Your task to perform on an android device: make emails show in primary in the gmail app Image 0: 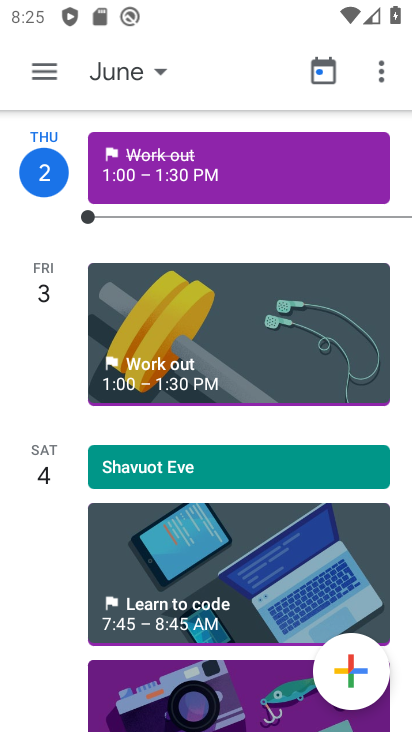
Step 0: press home button
Your task to perform on an android device: make emails show in primary in the gmail app Image 1: 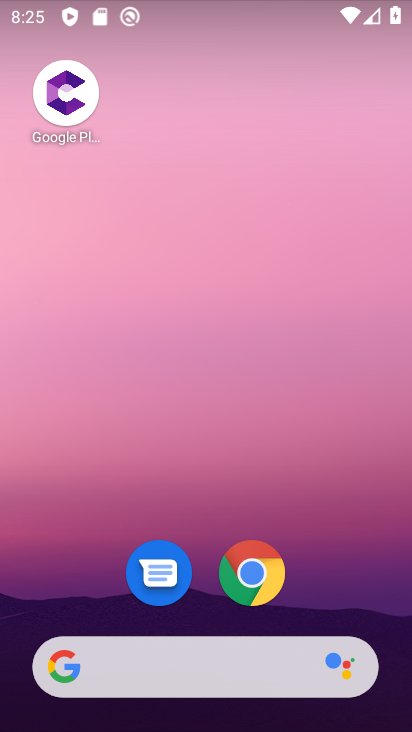
Step 1: drag from (339, 594) to (379, 44)
Your task to perform on an android device: make emails show in primary in the gmail app Image 2: 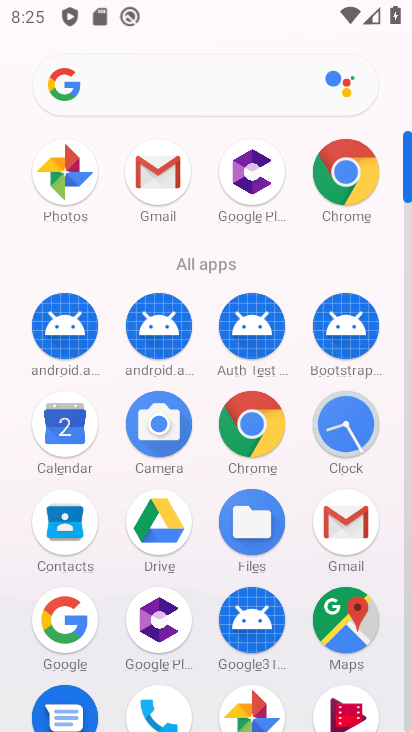
Step 2: click (167, 179)
Your task to perform on an android device: make emails show in primary in the gmail app Image 3: 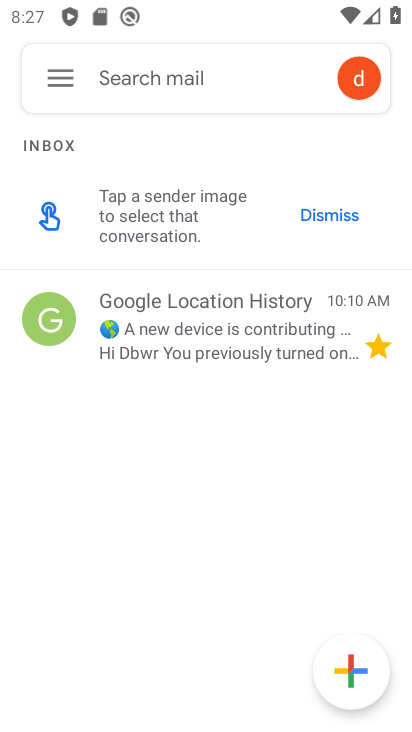
Step 3: press home button
Your task to perform on an android device: make emails show in primary in the gmail app Image 4: 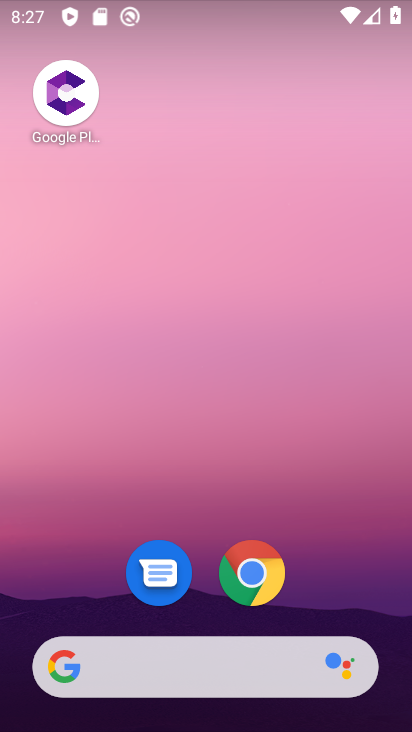
Step 4: drag from (325, 600) to (369, 27)
Your task to perform on an android device: make emails show in primary in the gmail app Image 5: 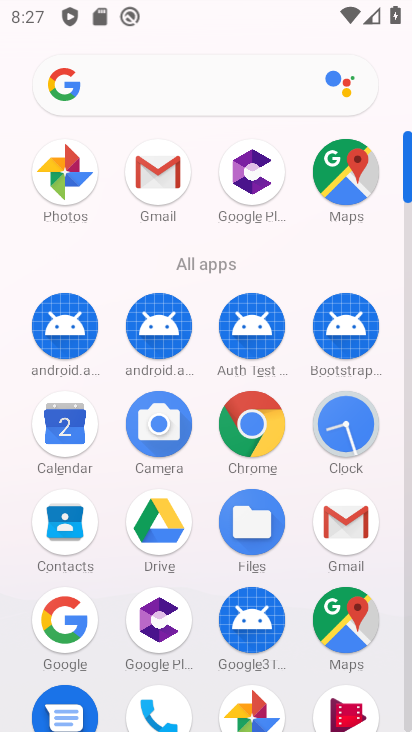
Step 5: click (165, 181)
Your task to perform on an android device: make emails show in primary in the gmail app Image 6: 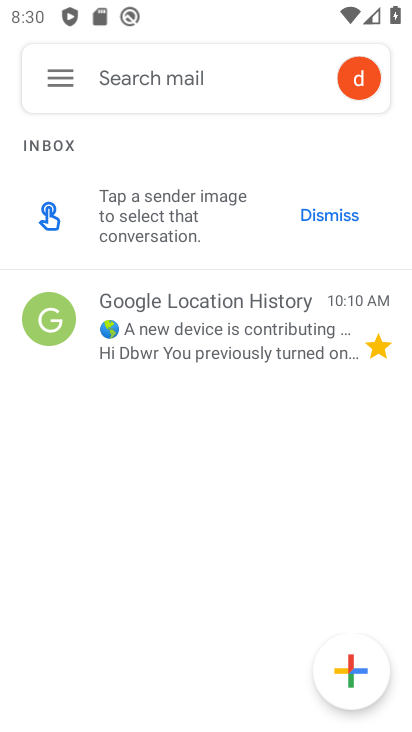
Step 6: click (53, 91)
Your task to perform on an android device: make emails show in primary in the gmail app Image 7: 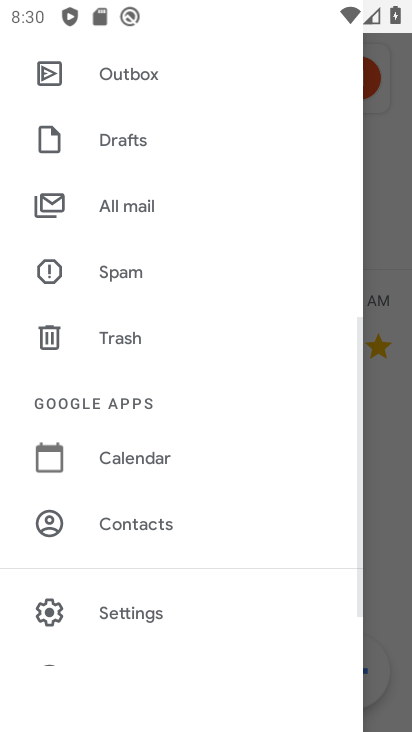
Step 7: task complete